Your task to perform on an android device: Open Chrome and go to settings Image 0: 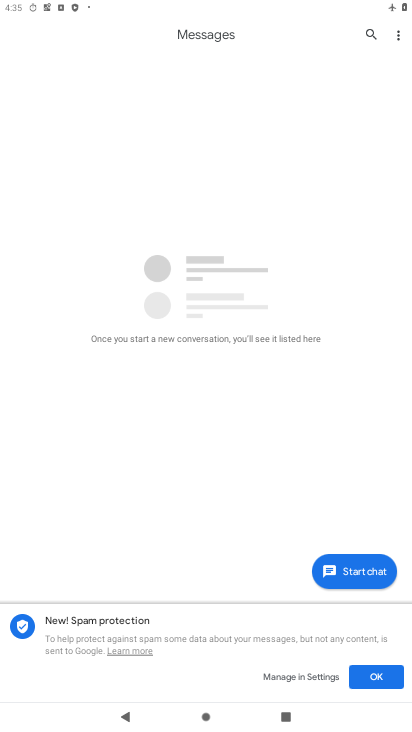
Step 0: press home button
Your task to perform on an android device: Open Chrome and go to settings Image 1: 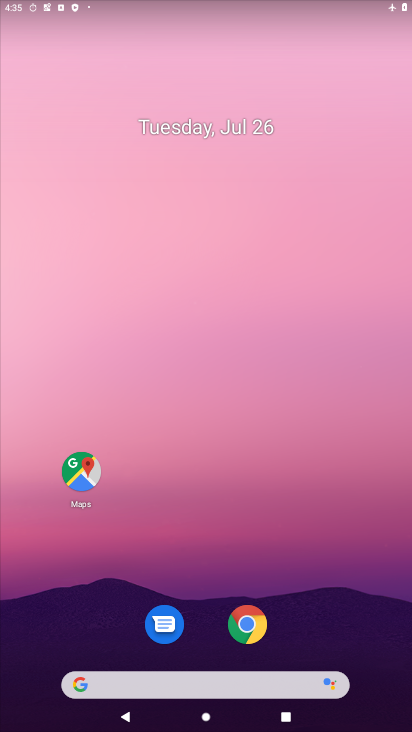
Step 1: drag from (231, 536) to (222, 3)
Your task to perform on an android device: Open Chrome and go to settings Image 2: 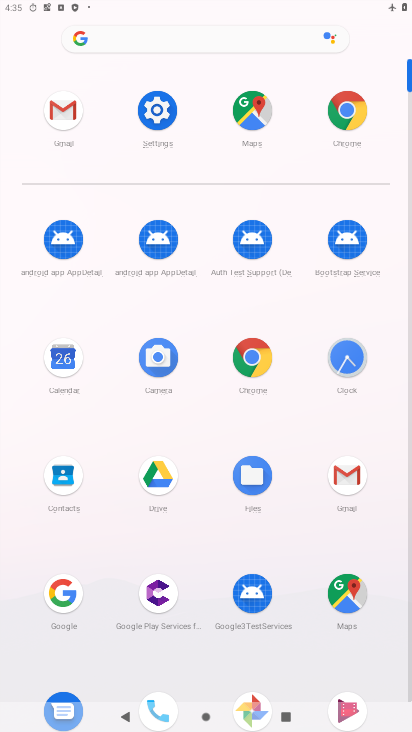
Step 2: click (254, 360)
Your task to perform on an android device: Open Chrome and go to settings Image 3: 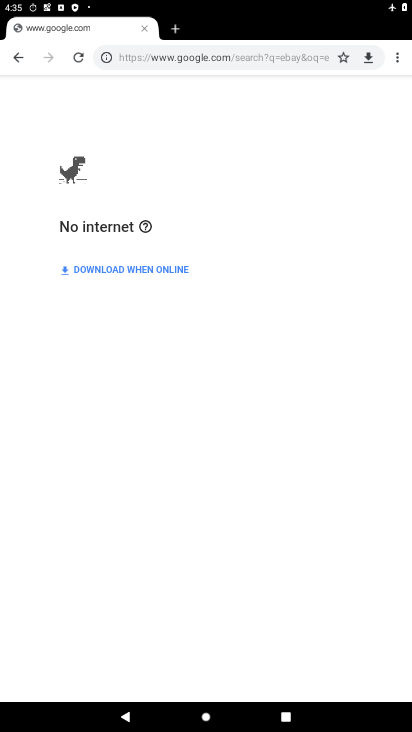
Step 3: task complete